Your task to perform on an android device: turn notification dots on Image 0: 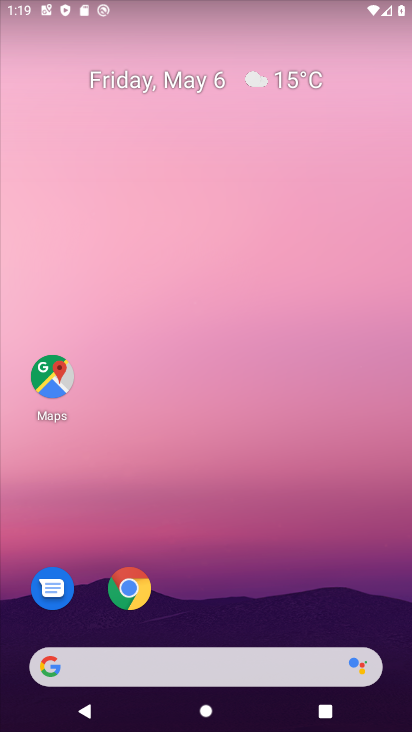
Step 0: drag from (200, 560) to (159, 11)
Your task to perform on an android device: turn notification dots on Image 1: 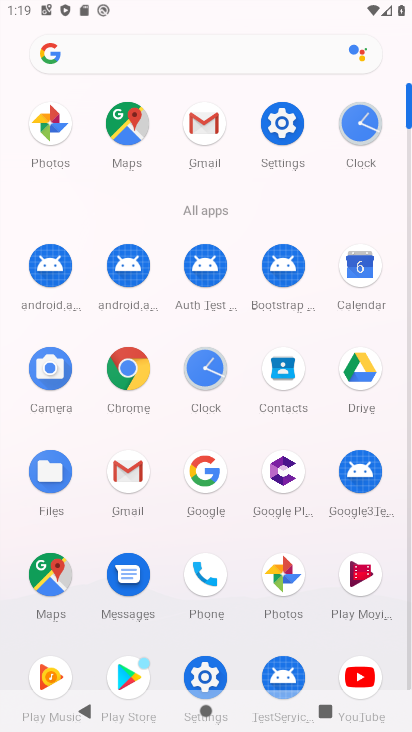
Step 1: click (276, 121)
Your task to perform on an android device: turn notification dots on Image 2: 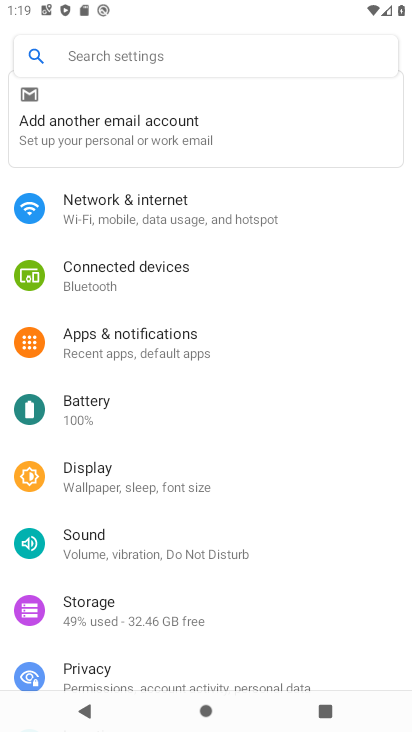
Step 2: drag from (179, 576) to (231, 231)
Your task to perform on an android device: turn notification dots on Image 3: 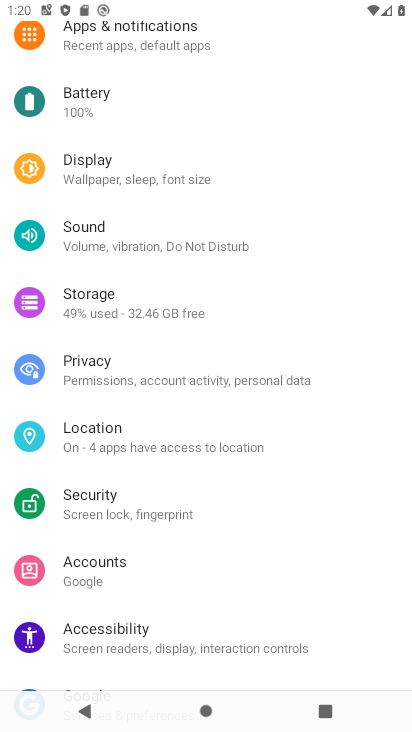
Step 3: click (151, 28)
Your task to perform on an android device: turn notification dots on Image 4: 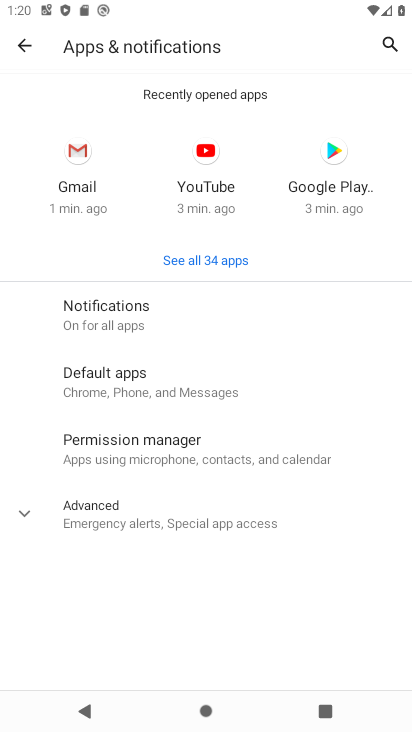
Step 4: click (173, 312)
Your task to perform on an android device: turn notification dots on Image 5: 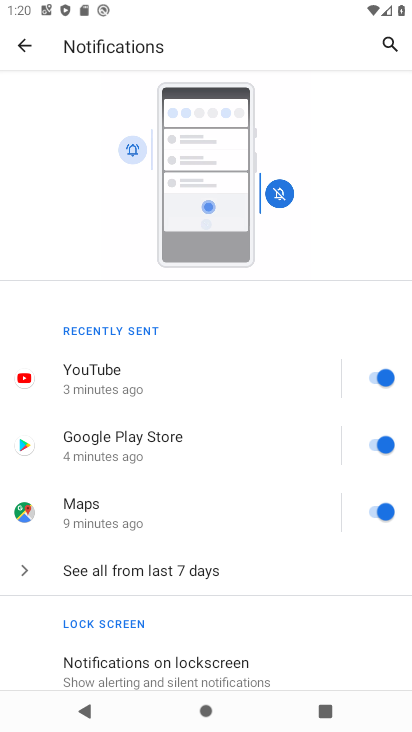
Step 5: drag from (255, 554) to (366, 58)
Your task to perform on an android device: turn notification dots on Image 6: 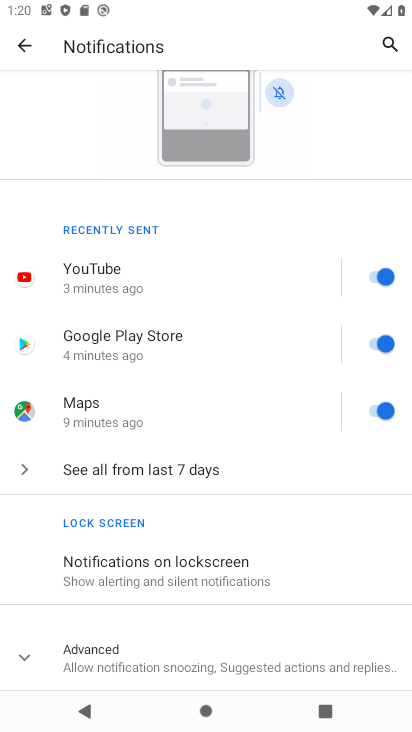
Step 6: click (127, 660)
Your task to perform on an android device: turn notification dots on Image 7: 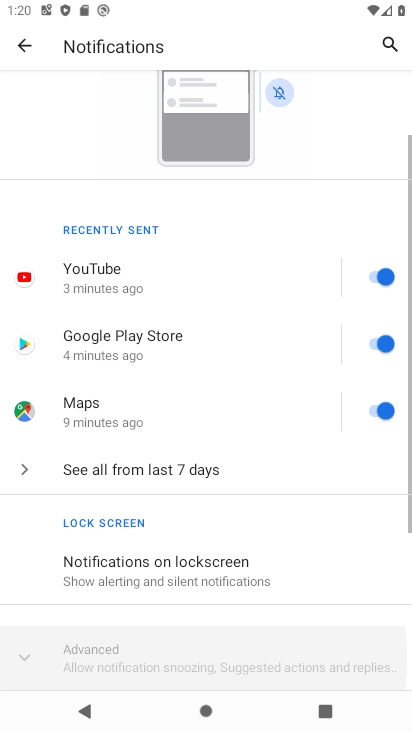
Step 7: task complete